Your task to perform on an android device: change notification settings in the gmail app Image 0: 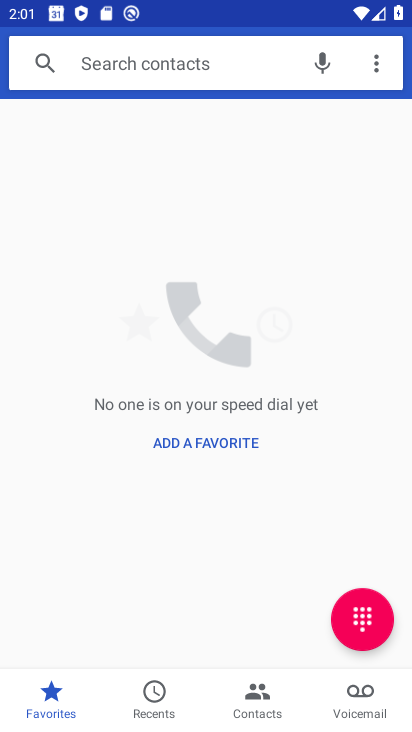
Step 0: press back button
Your task to perform on an android device: change notification settings in the gmail app Image 1: 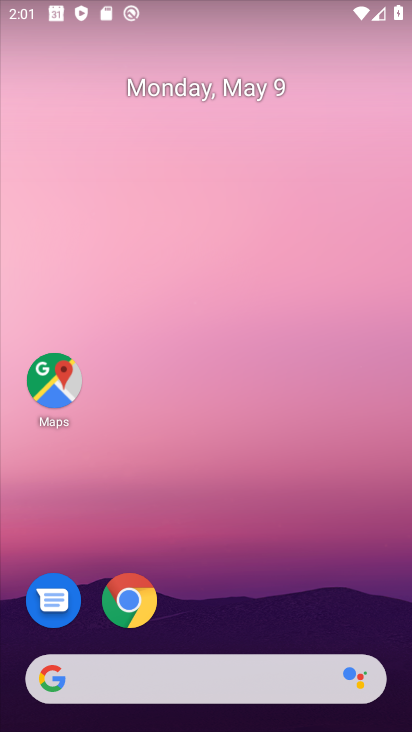
Step 1: drag from (273, 590) to (14, 17)
Your task to perform on an android device: change notification settings in the gmail app Image 2: 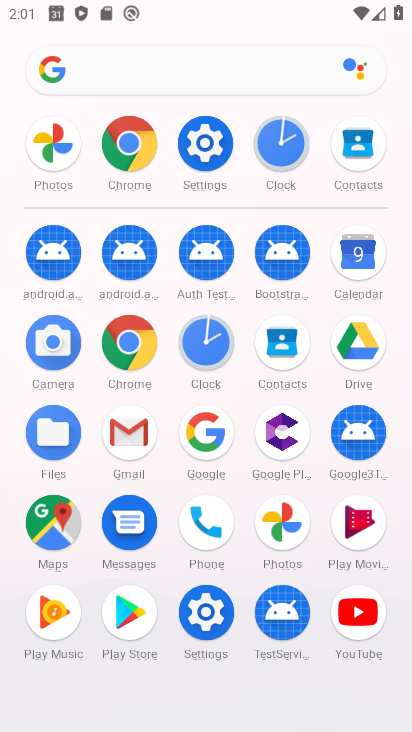
Step 2: drag from (5, 570) to (17, 204)
Your task to perform on an android device: change notification settings in the gmail app Image 3: 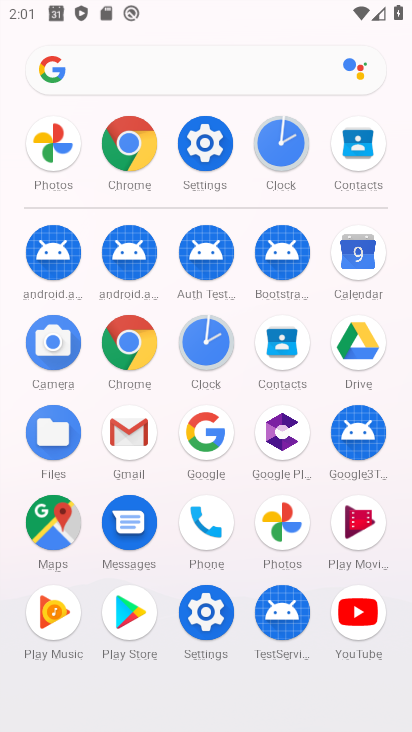
Step 3: click (126, 427)
Your task to perform on an android device: change notification settings in the gmail app Image 4: 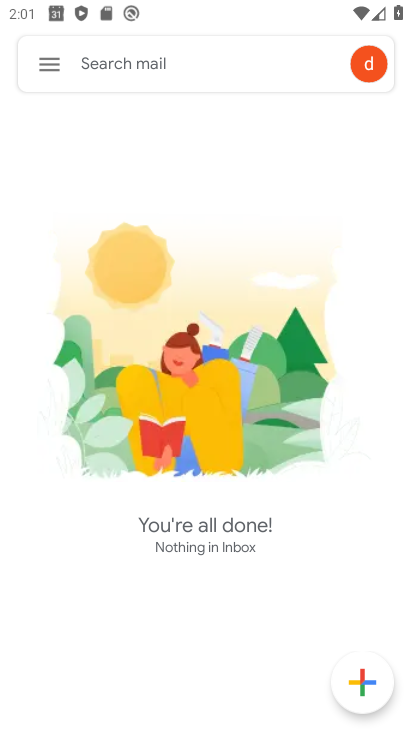
Step 4: click (49, 56)
Your task to perform on an android device: change notification settings in the gmail app Image 5: 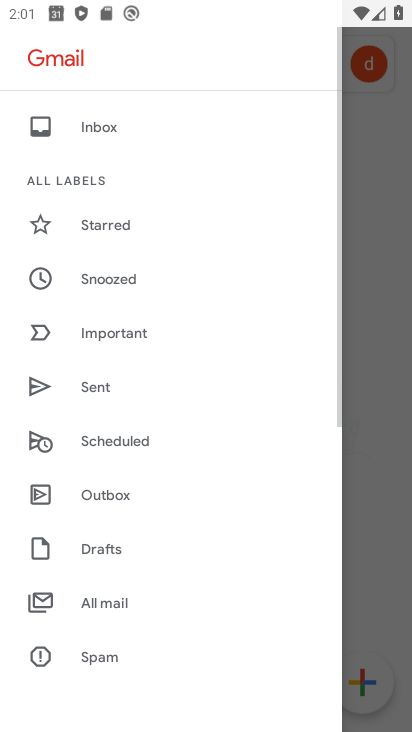
Step 5: drag from (201, 534) to (216, 120)
Your task to perform on an android device: change notification settings in the gmail app Image 6: 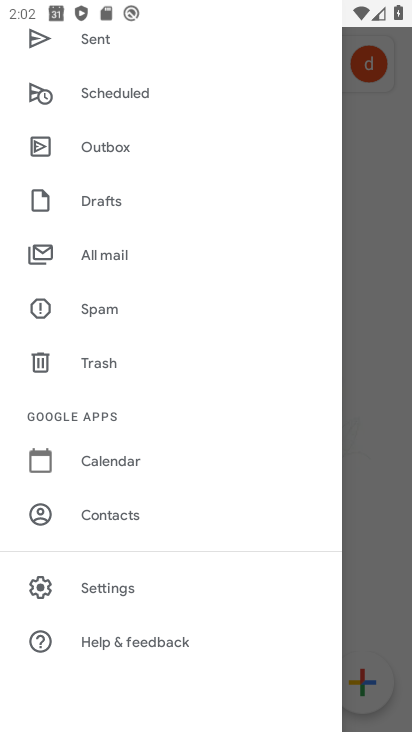
Step 6: click (108, 592)
Your task to perform on an android device: change notification settings in the gmail app Image 7: 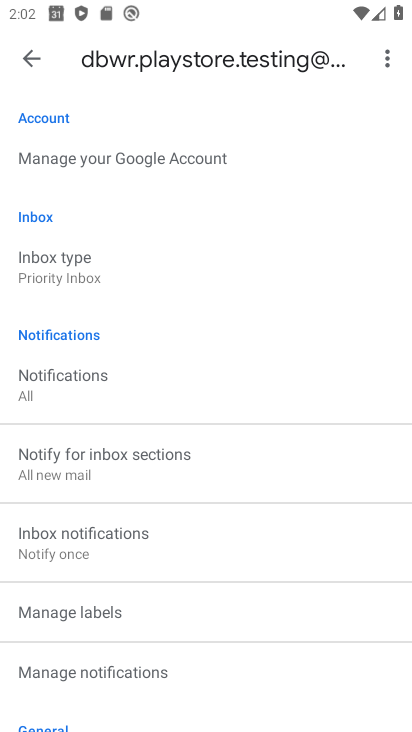
Step 7: drag from (253, 602) to (263, 415)
Your task to perform on an android device: change notification settings in the gmail app Image 8: 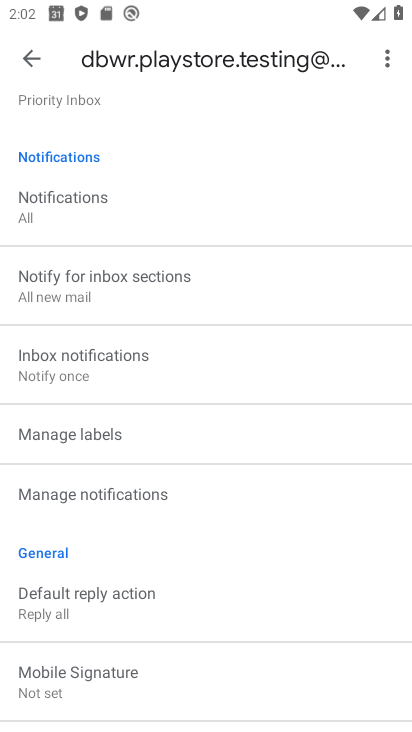
Step 8: drag from (254, 603) to (253, 143)
Your task to perform on an android device: change notification settings in the gmail app Image 9: 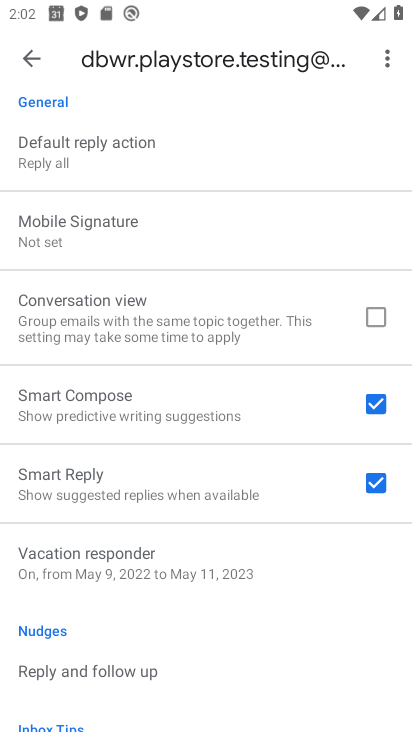
Step 9: drag from (183, 201) to (166, 530)
Your task to perform on an android device: change notification settings in the gmail app Image 10: 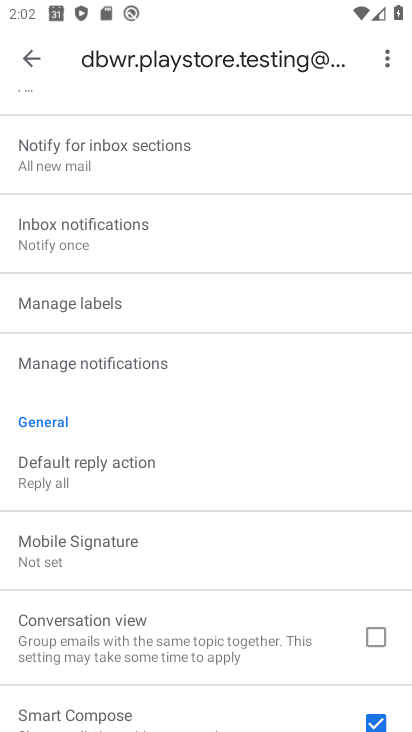
Step 10: click (98, 353)
Your task to perform on an android device: change notification settings in the gmail app Image 11: 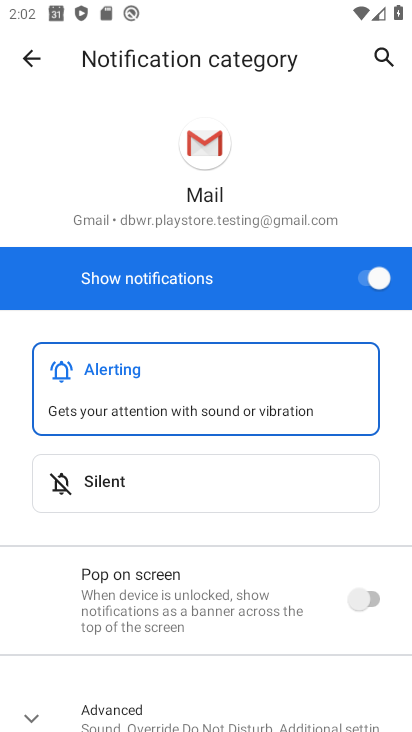
Step 11: click (376, 278)
Your task to perform on an android device: change notification settings in the gmail app Image 12: 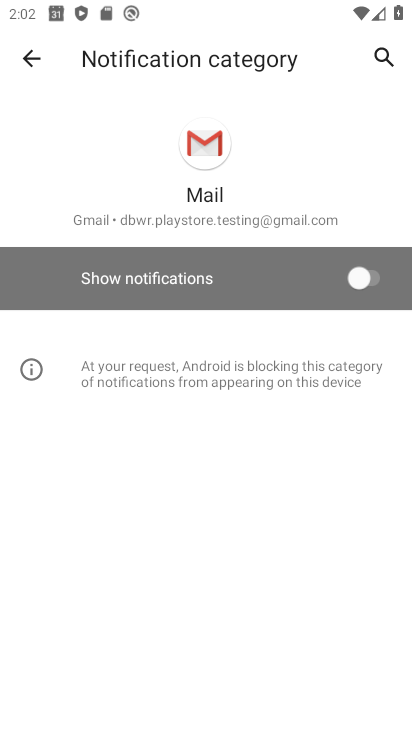
Step 12: task complete